Your task to perform on an android device: Show me the alarms in the clock app Image 0: 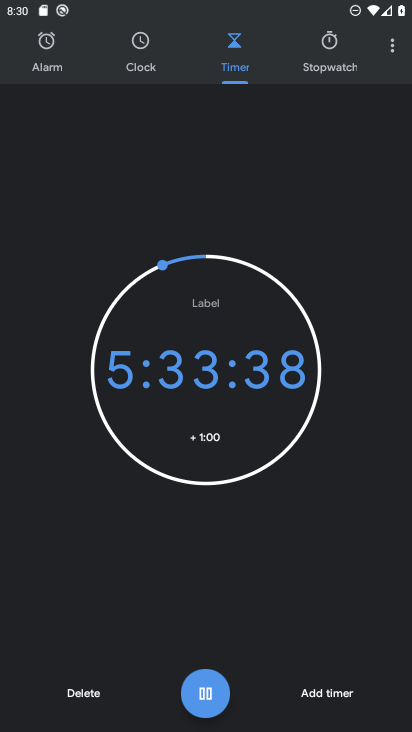
Step 0: click (24, 75)
Your task to perform on an android device: Show me the alarms in the clock app Image 1: 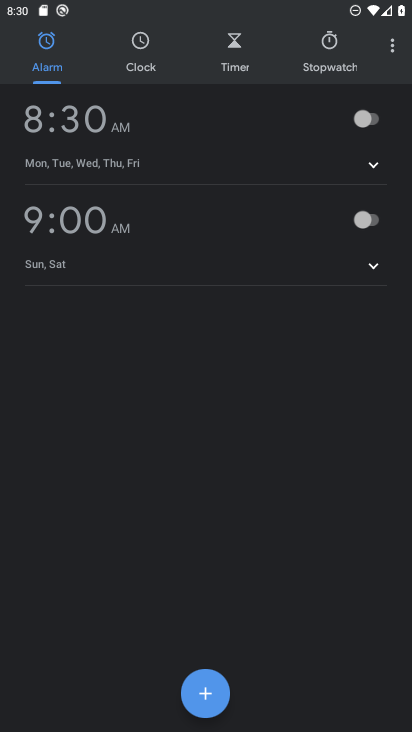
Step 1: task complete